Your task to perform on an android device: turn on data saver in the chrome app Image 0: 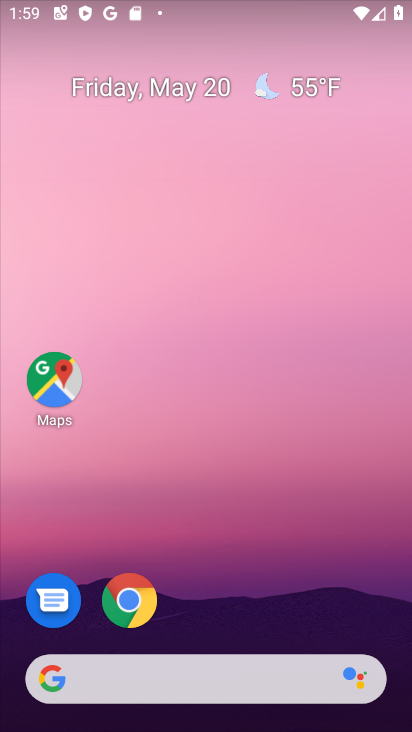
Step 0: drag from (229, 657) to (310, 169)
Your task to perform on an android device: turn on data saver in the chrome app Image 1: 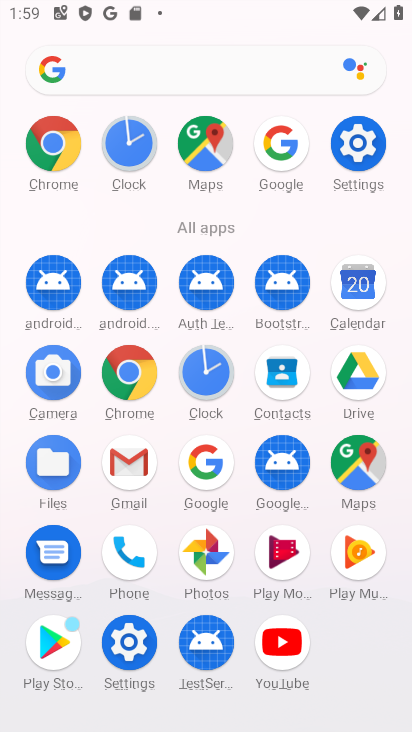
Step 1: click (75, 163)
Your task to perform on an android device: turn on data saver in the chrome app Image 2: 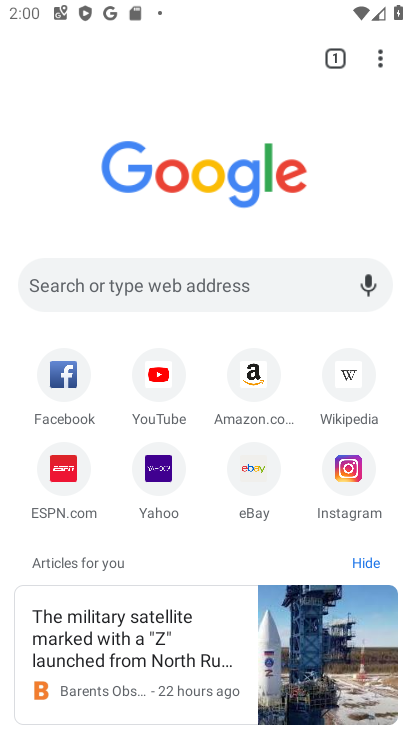
Step 2: click (383, 65)
Your task to perform on an android device: turn on data saver in the chrome app Image 3: 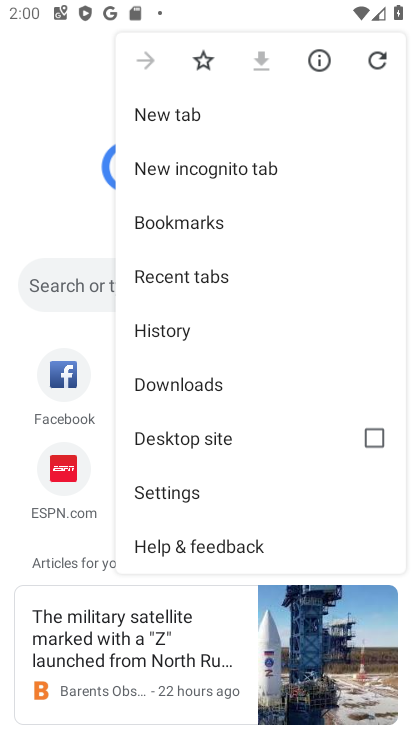
Step 3: click (252, 494)
Your task to perform on an android device: turn on data saver in the chrome app Image 4: 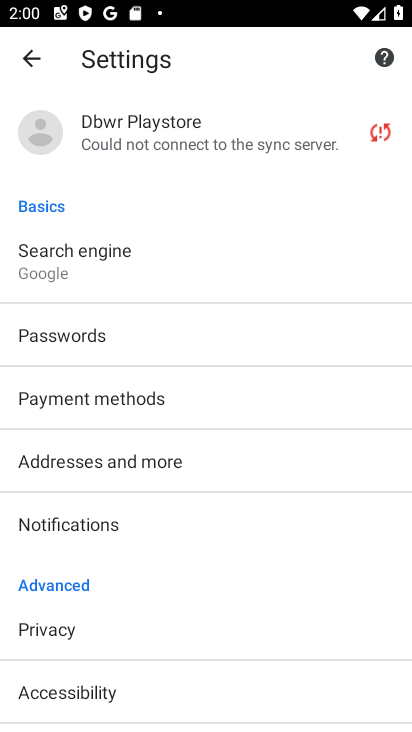
Step 4: drag from (257, 621) to (343, 255)
Your task to perform on an android device: turn on data saver in the chrome app Image 5: 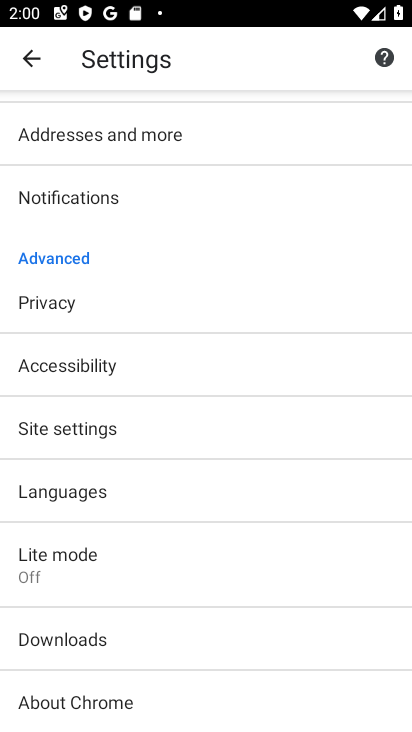
Step 5: drag from (248, 441) to (294, 304)
Your task to perform on an android device: turn on data saver in the chrome app Image 6: 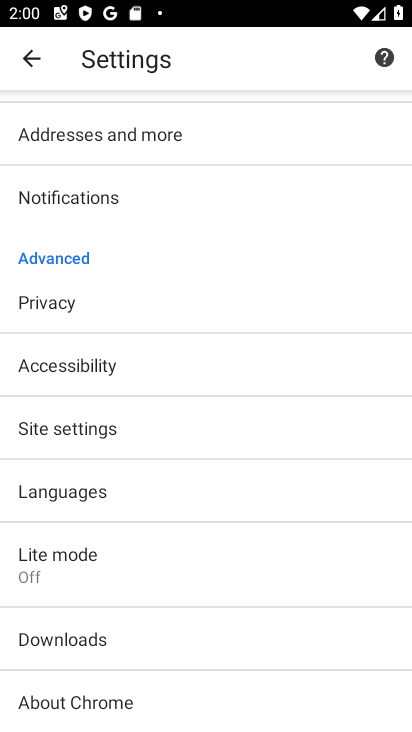
Step 6: drag from (123, 609) to (288, 207)
Your task to perform on an android device: turn on data saver in the chrome app Image 7: 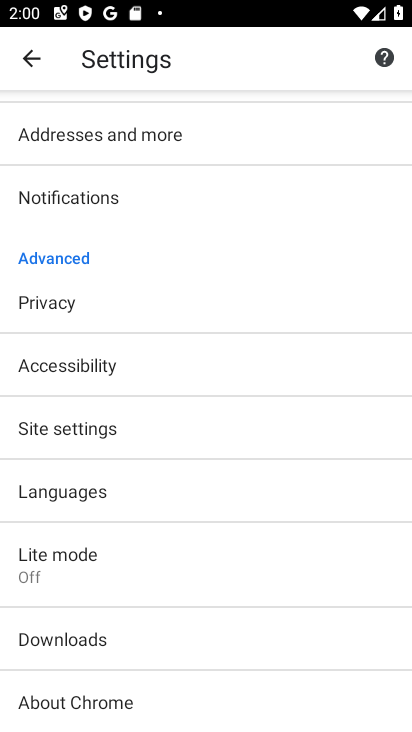
Step 7: drag from (170, 593) to (263, 367)
Your task to perform on an android device: turn on data saver in the chrome app Image 8: 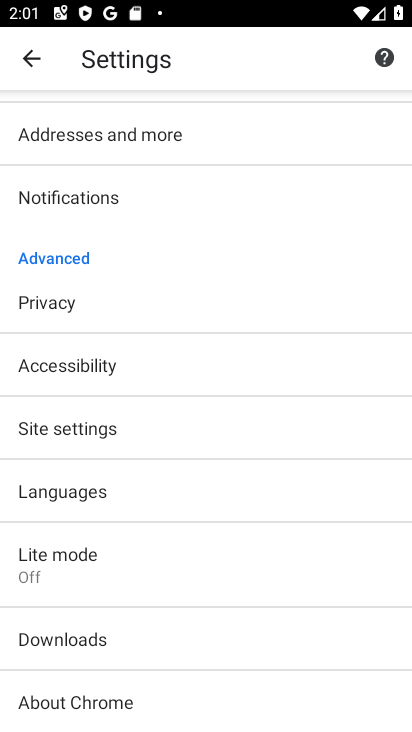
Step 8: drag from (209, 489) to (271, 323)
Your task to perform on an android device: turn on data saver in the chrome app Image 9: 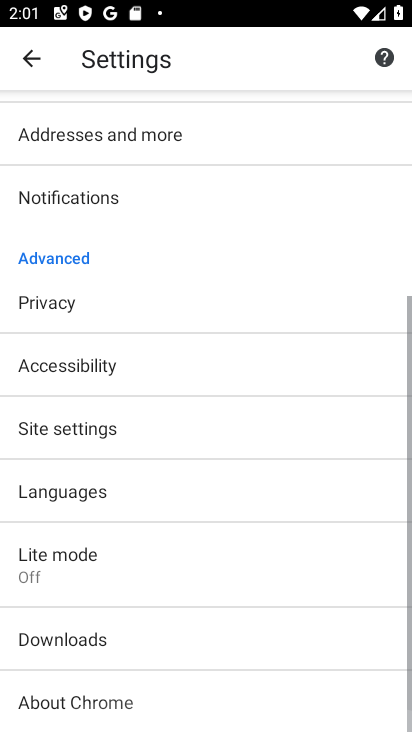
Step 9: click (287, 265)
Your task to perform on an android device: turn on data saver in the chrome app Image 10: 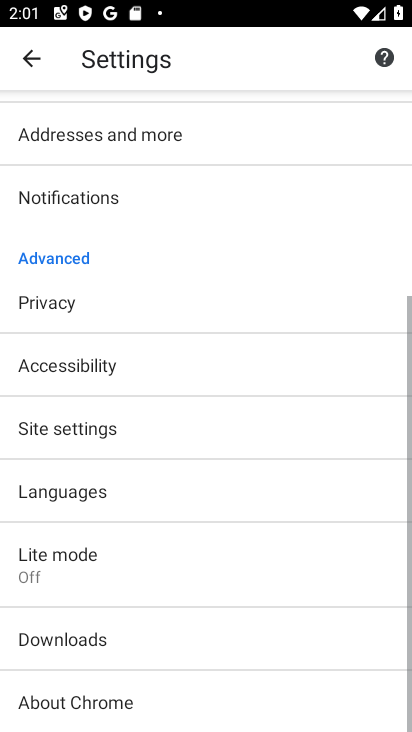
Step 10: click (159, 559)
Your task to perform on an android device: turn on data saver in the chrome app Image 11: 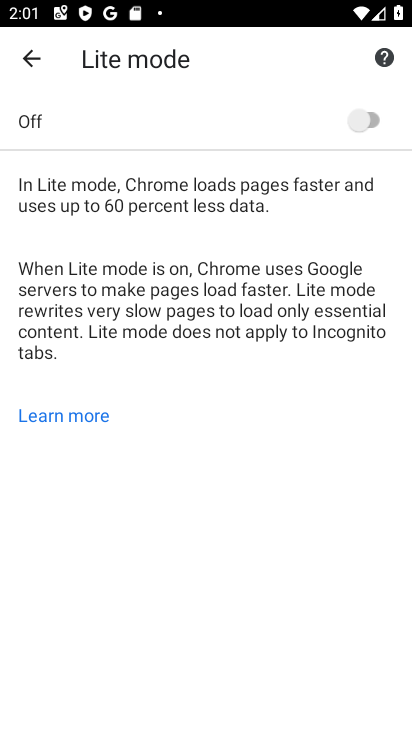
Step 11: click (365, 129)
Your task to perform on an android device: turn on data saver in the chrome app Image 12: 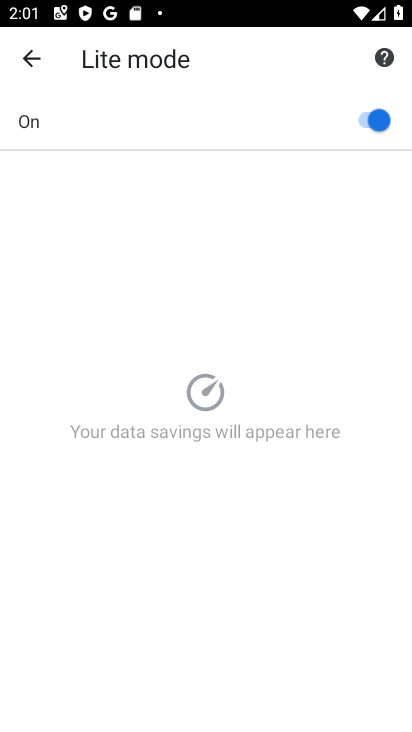
Step 12: task complete